Your task to perform on an android device: Go to Yahoo.com Image 0: 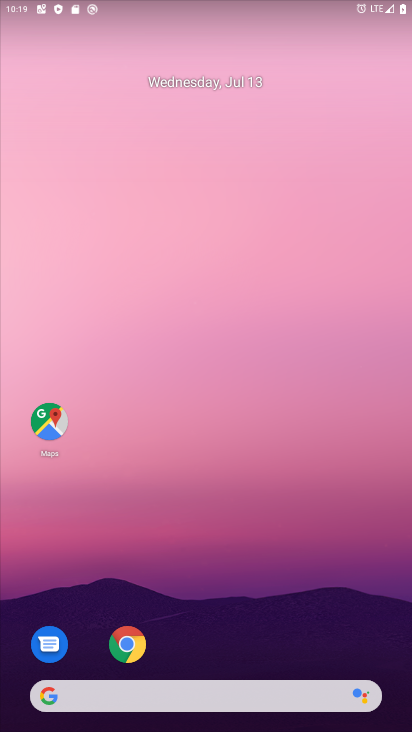
Step 0: drag from (206, 724) to (217, 108)
Your task to perform on an android device: Go to Yahoo.com Image 1: 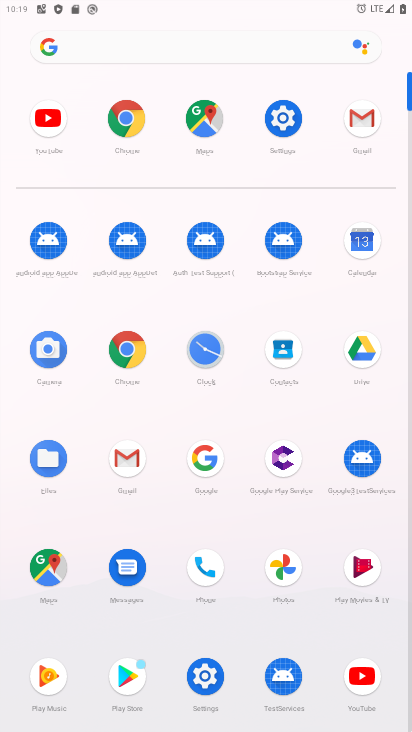
Step 1: click (123, 356)
Your task to perform on an android device: Go to Yahoo.com Image 2: 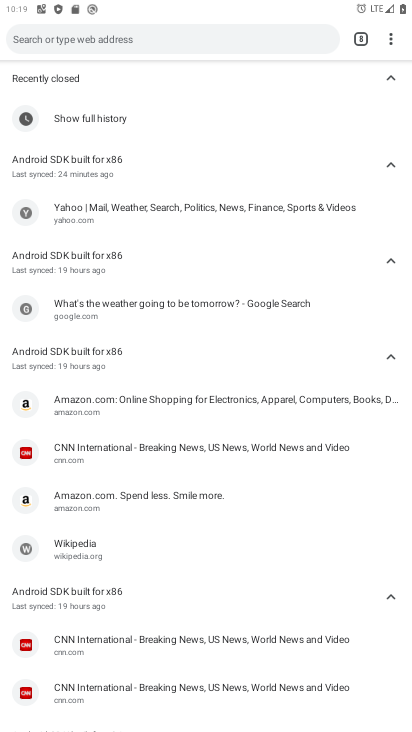
Step 2: click (248, 38)
Your task to perform on an android device: Go to Yahoo.com Image 3: 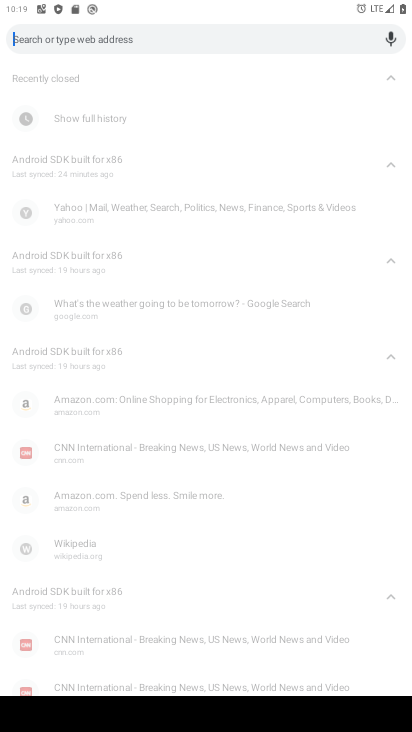
Step 3: type "Yahoo.com"
Your task to perform on an android device: Go to Yahoo.com Image 4: 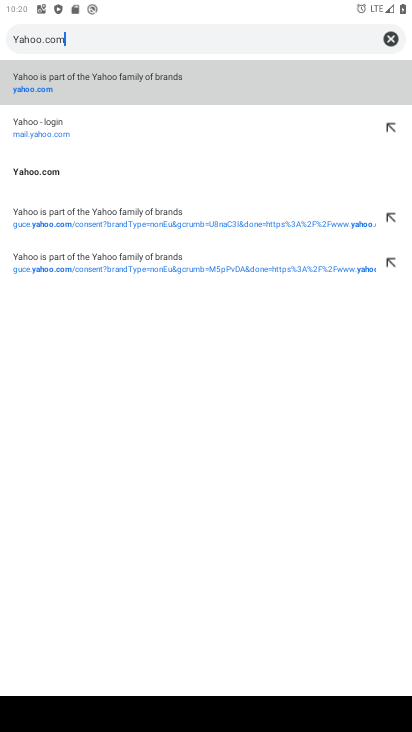
Step 4: type ""
Your task to perform on an android device: Go to Yahoo.com Image 5: 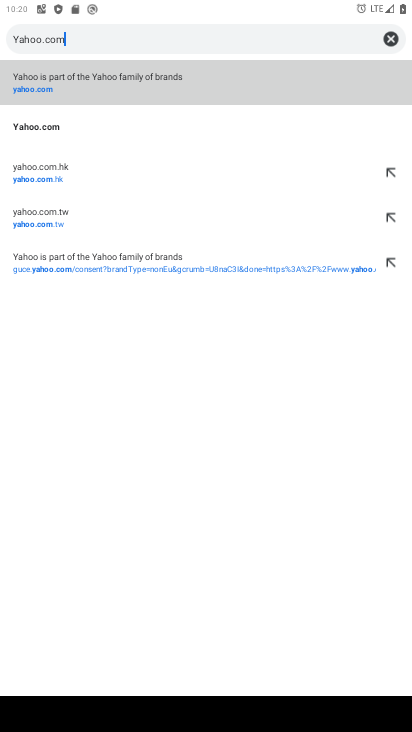
Step 5: click (51, 125)
Your task to perform on an android device: Go to Yahoo.com Image 6: 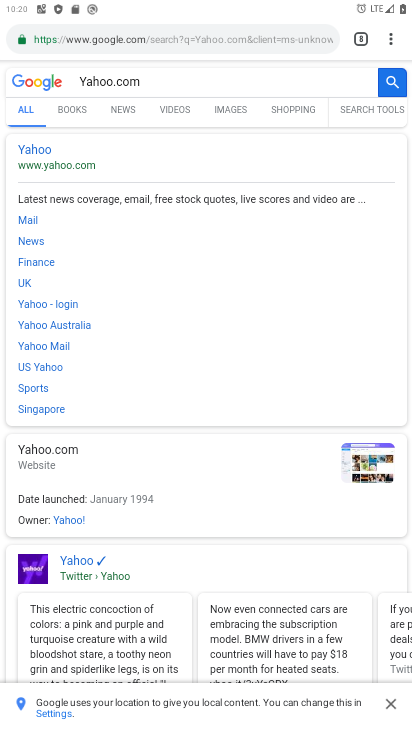
Step 6: click (38, 147)
Your task to perform on an android device: Go to Yahoo.com Image 7: 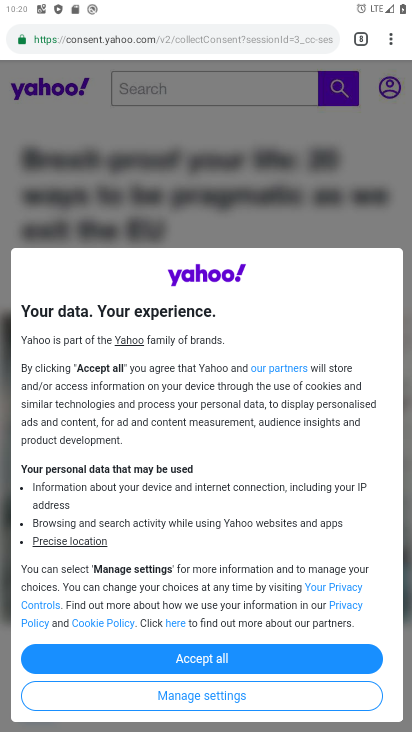
Step 7: click (224, 653)
Your task to perform on an android device: Go to Yahoo.com Image 8: 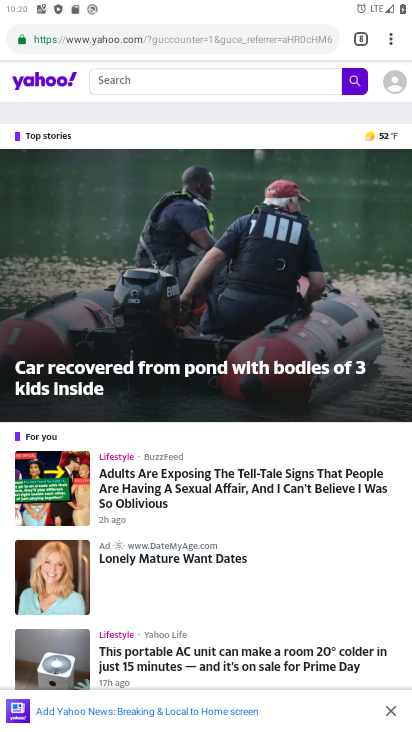
Step 8: task complete